Your task to perform on an android device: Open Wikipedia Image 0: 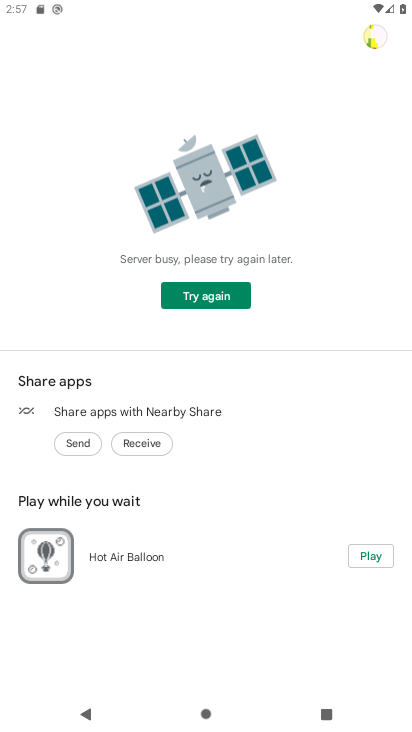
Step 0: press home button
Your task to perform on an android device: Open Wikipedia Image 1: 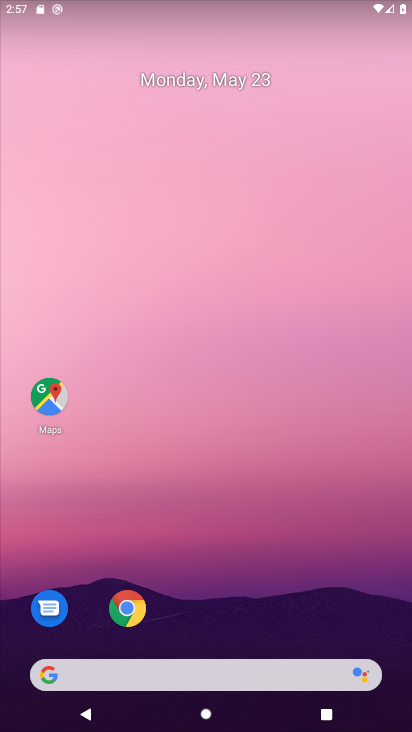
Step 1: click (125, 613)
Your task to perform on an android device: Open Wikipedia Image 2: 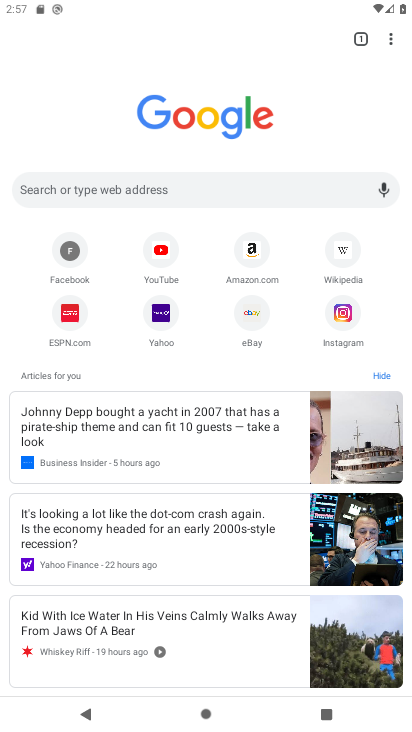
Step 2: click (341, 257)
Your task to perform on an android device: Open Wikipedia Image 3: 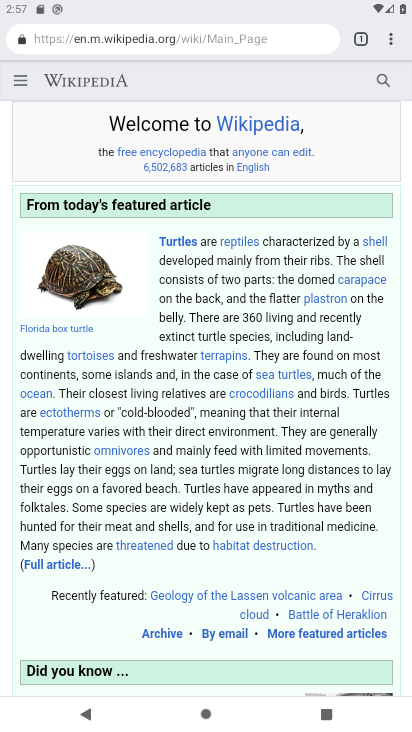
Step 3: task complete